Your task to perform on an android device: check data usage Image 0: 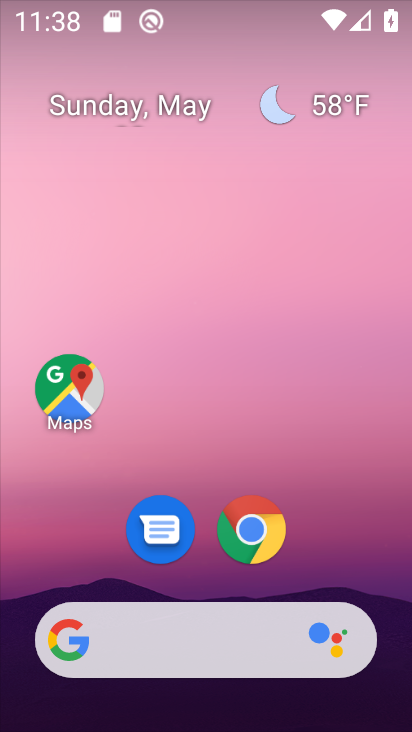
Step 0: drag from (248, 639) to (147, 125)
Your task to perform on an android device: check data usage Image 1: 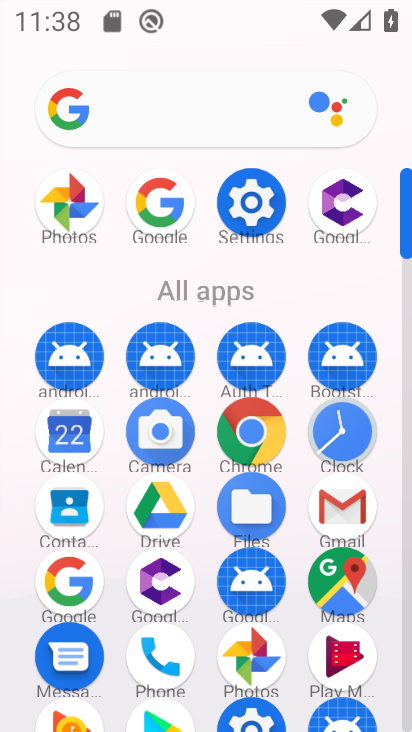
Step 1: click (240, 195)
Your task to perform on an android device: check data usage Image 2: 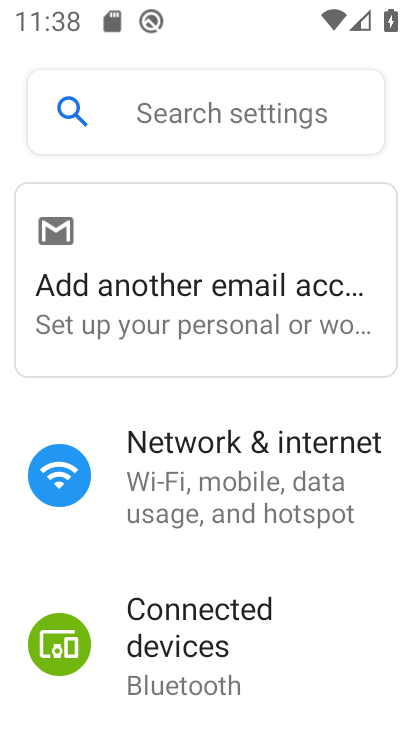
Step 2: drag from (209, 598) to (161, 343)
Your task to perform on an android device: check data usage Image 3: 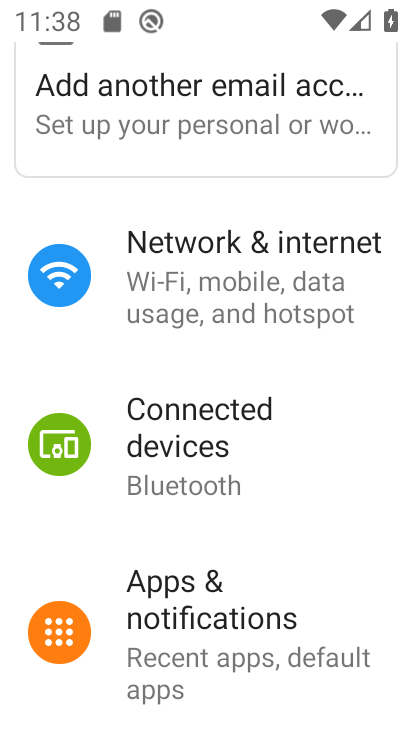
Step 3: click (244, 307)
Your task to perform on an android device: check data usage Image 4: 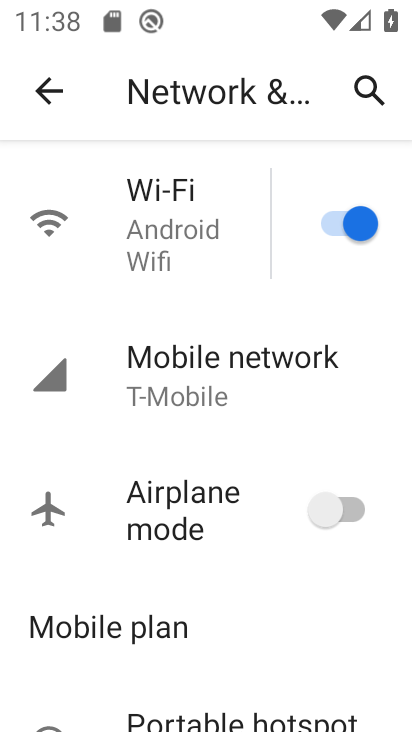
Step 4: click (216, 379)
Your task to perform on an android device: check data usage Image 5: 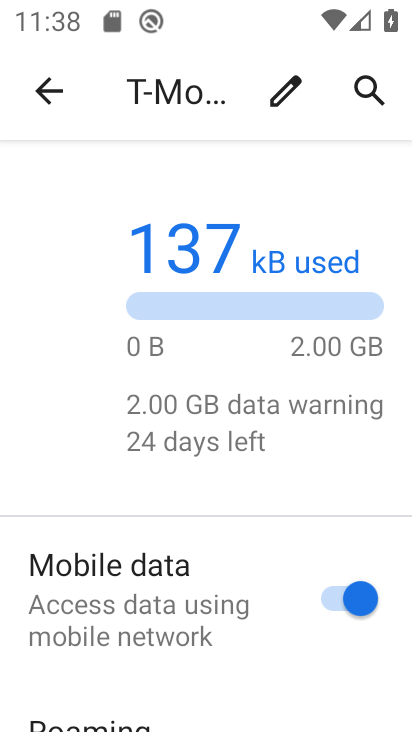
Step 5: task complete